Your task to perform on an android device: toggle airplane mode Image 0: 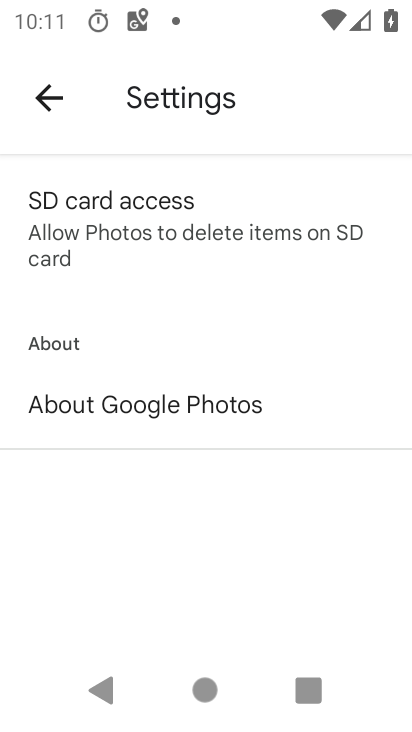
Step 0: click (56, 103)
Your task to perform on an android device: toggle airplane mode Image 1: 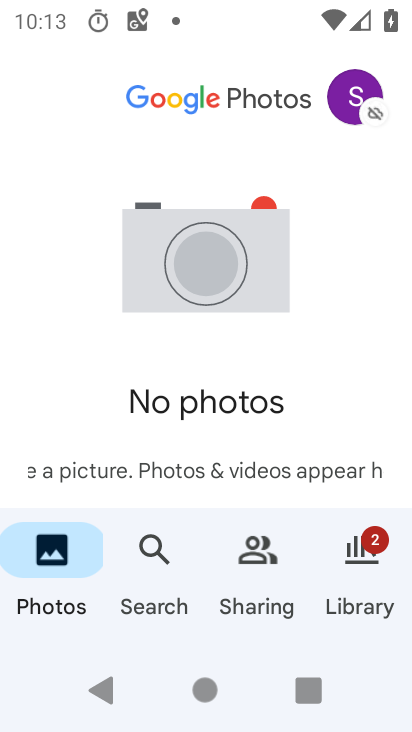
Step 1: press back button
Your task to perform on an android device: toggle airplane mode Image 2: 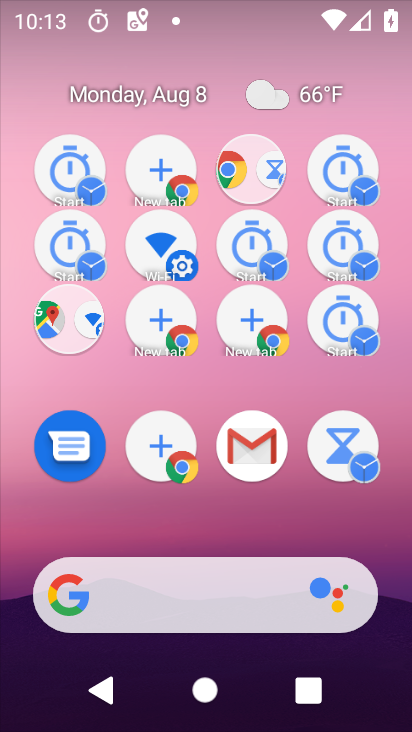
Step 2: click (315, 278)
Your task to perform on an android device: toggle airplane mode Image 3: 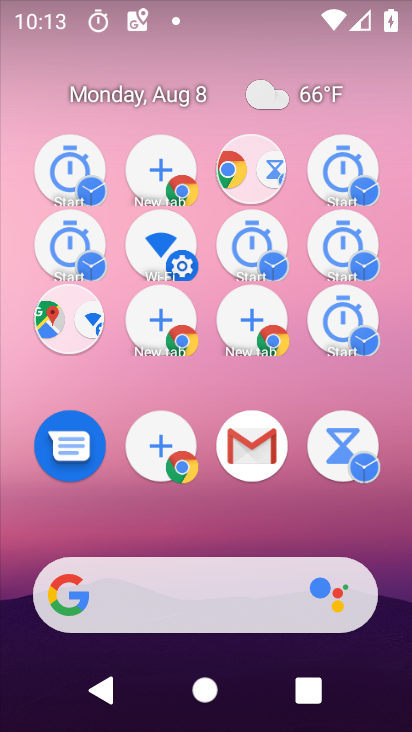
Step 3: drag from (269, 640) to (161, 201)
Your task to perform on an android device: toggle airplane mode Image 4: 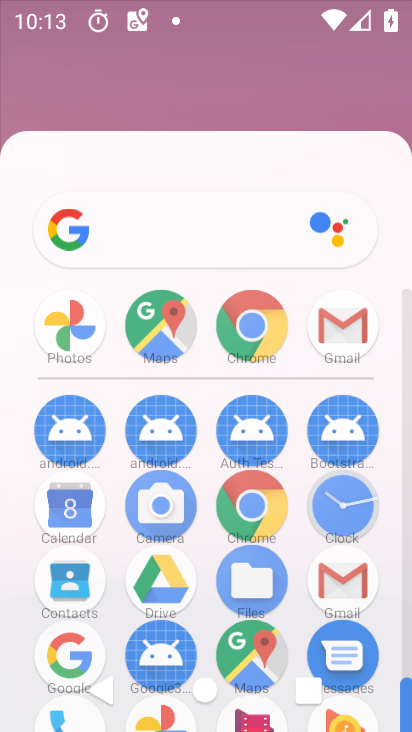
Step 4: click (205, 205)
Your task to perform on an android device: toggle airplane mode Image 5: 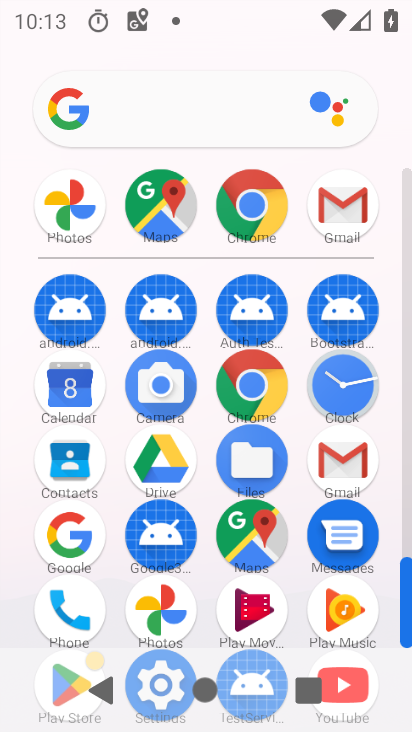
Step 5: drag from (244, 521) to (213, 206)
Your task to perform on an android device: toggle airplane mode Image 6: 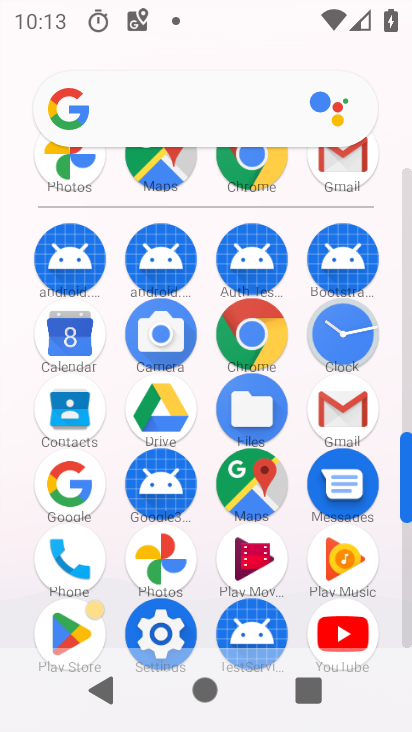
Step 6: drag from (189, 355) to (189, 270)
Your task to perform on an android device: toggle airplane mode Image 7: 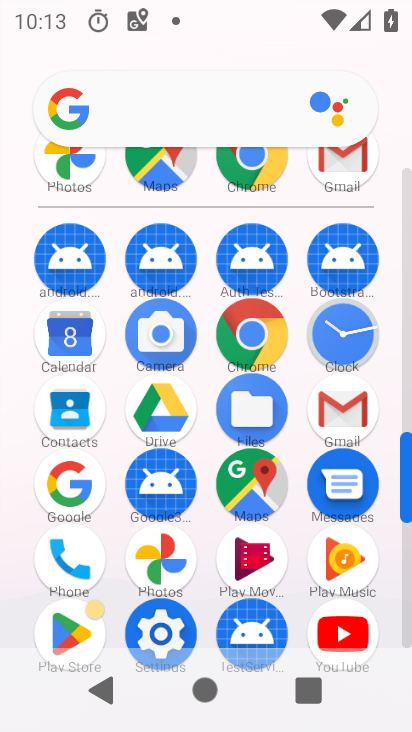
Step 7: click (168, 630)
Your task to perform on an android device: toggle airplane mode Image 8: 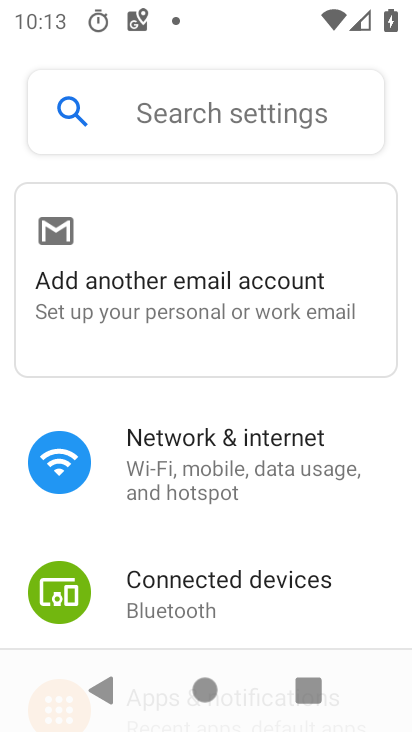
Step 8: click (189, 478)
Your task to perform on an android device: toggle airplane mode Image 9: 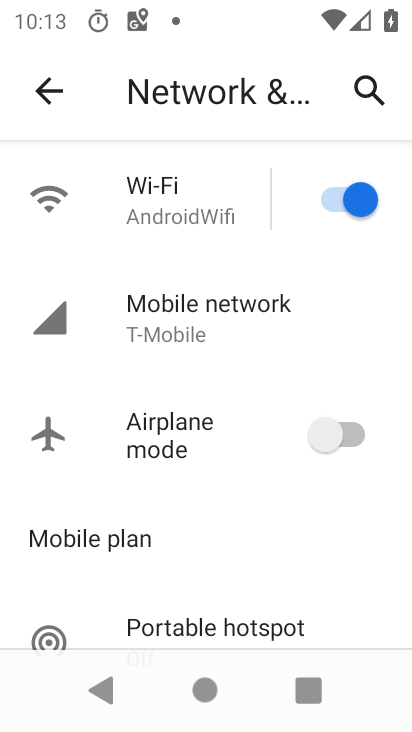
Step 9: click (325, 436)
Your task to perform on an android device: toggle airplane mode Image 10: 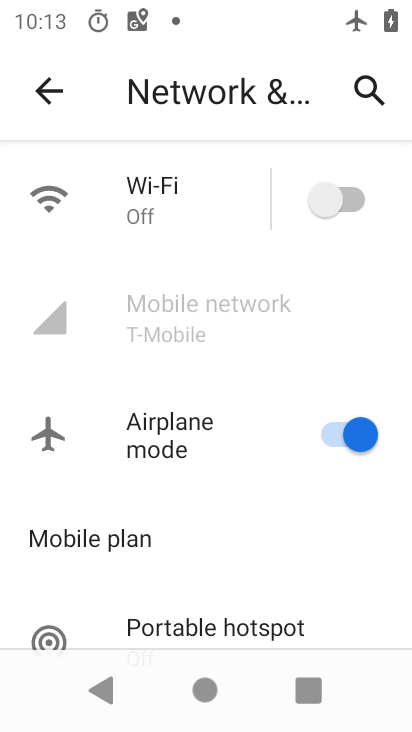
Step 10: task complete